Your task to perform on an android device: turn off picture-in-picture Image 0: 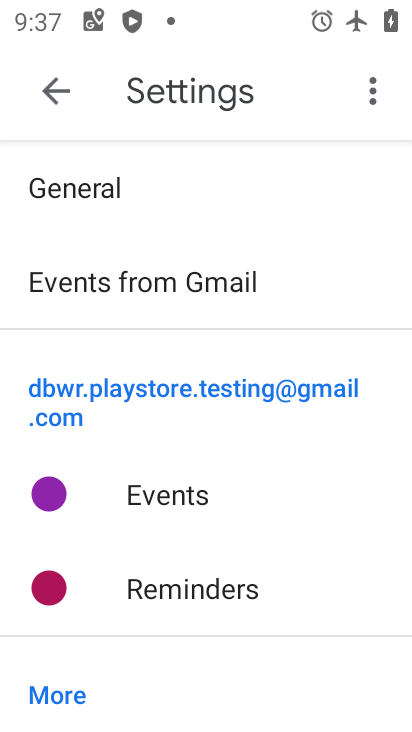
Step 0: press home button
Your task to perform on an android device: turn off picture-in-picture Image 1: 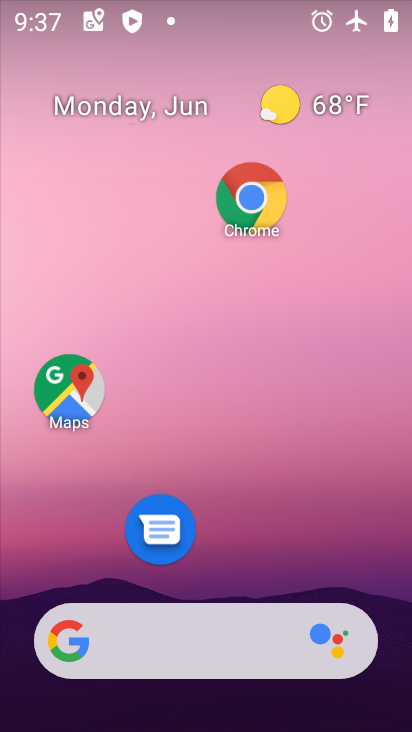
Step 1: click (248, 199)
Your task to perform on an android device: turn off picture-in-picture Image 2: 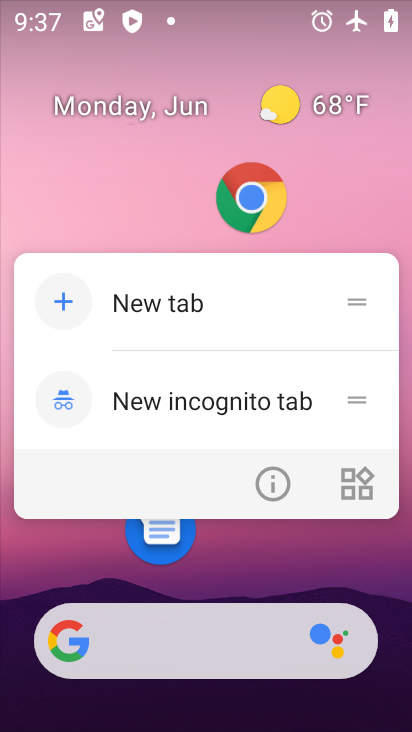
Step 2: click (278, 485)
Your task to perform on an android device: turn off picture-in-picture Image 3: 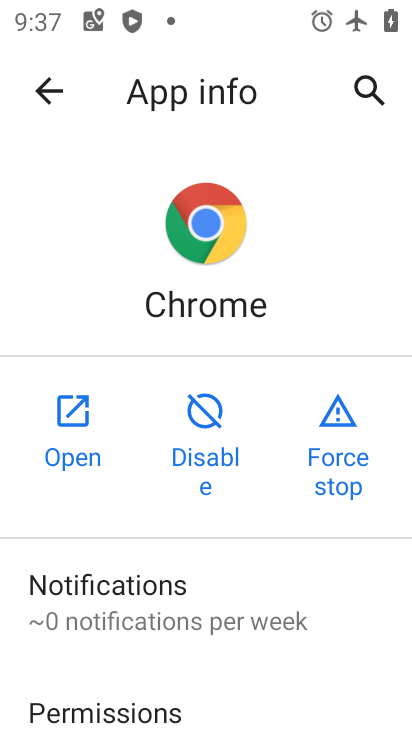
Step 3: drag from (253, 637) to (227, 164)
Your task to perform on an android device: turn off picture-in-picture Image 4: 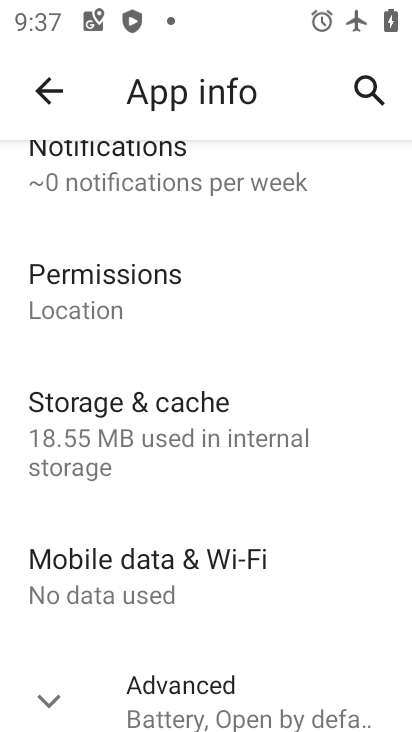
Step 4: click (234, 308)
Your task to perform on an android device: turn off picture-in-picture Image 5: 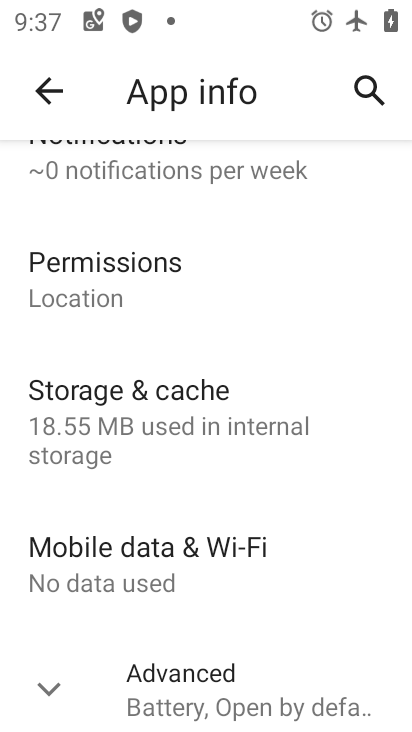
Step 5: drag from (227, 603) to (241, 285)
Your task to perform on an android device: turn off picture-in-picture Image 6: 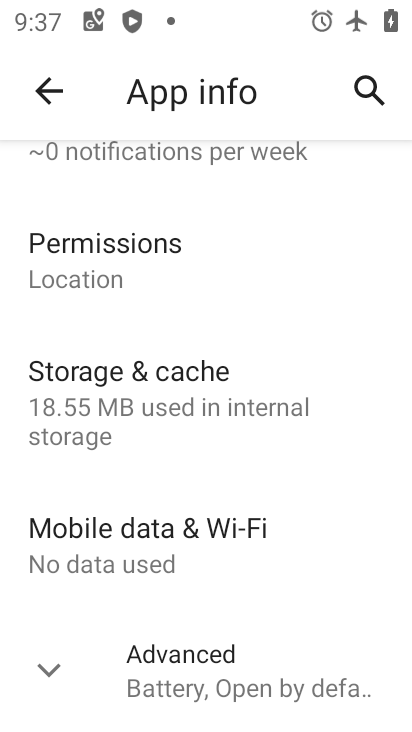
Step 6: drag from (262, 565) to (270, 241)
Your task to perform on an android device: turn off picture-in-picture Image 7: 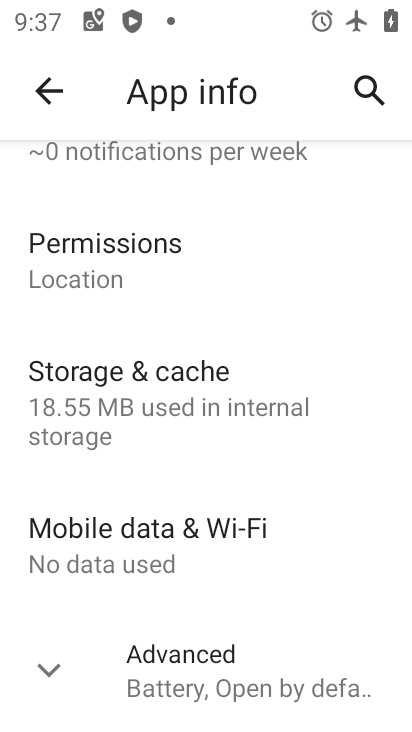
Step 7: drag from (229, 647) to (237, 196)
Your task to perform on an android device: turn off picture-in-picture Image 8: 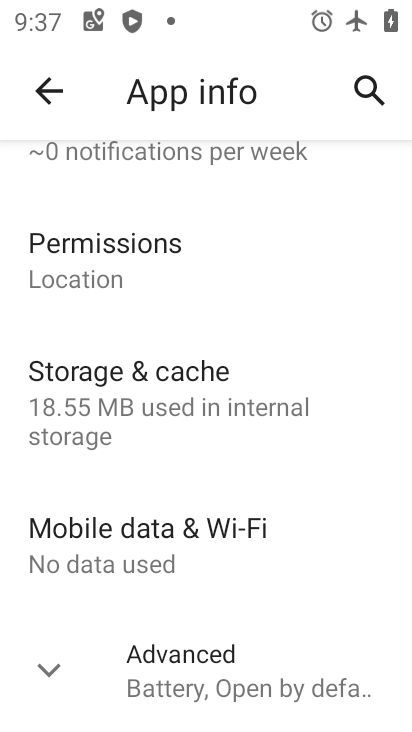
Step 8: click (162, 649)
Your task to perform on an android device: turn off picture-in-picture Image 9: 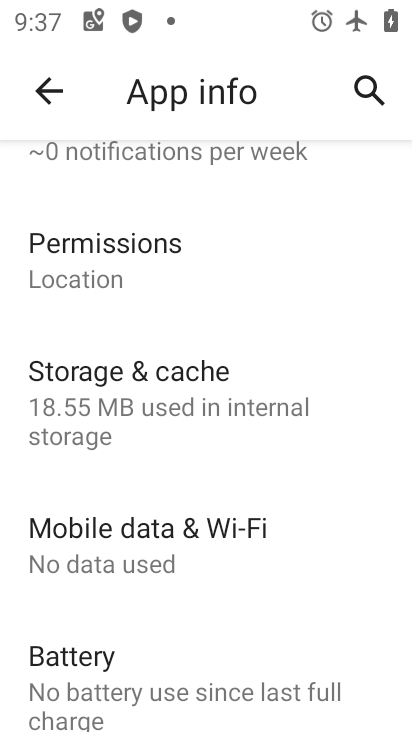
Step 9: drag from (194, 665) to (232, 400)
Your task to perform on an android device: turn off picture-in-picture Image 10: 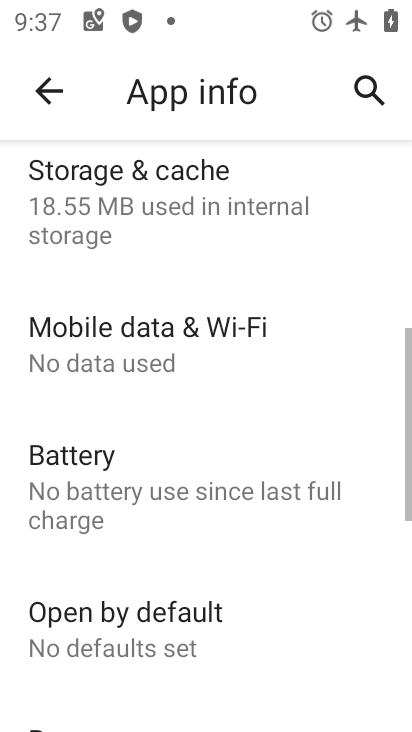
Step 10: drag from (223, 623) to (248, 375)
Your task to perform on an android device: turn off picture-in-picture Image 11: 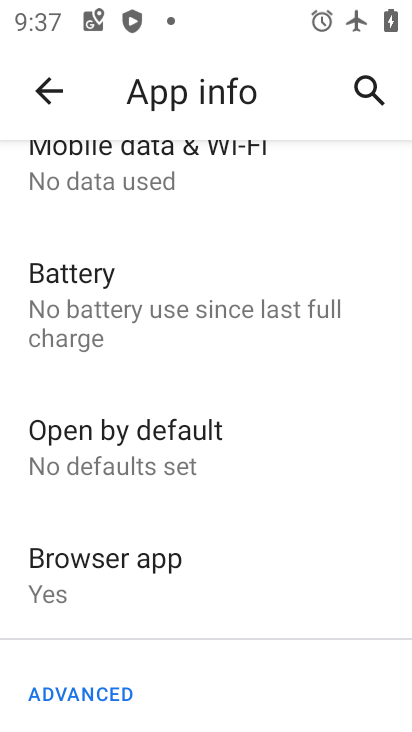
Step 11: drag from (262, 559) to (260, 290)
Your task to perform on an android device: turn off picture-in-picture Image 12: 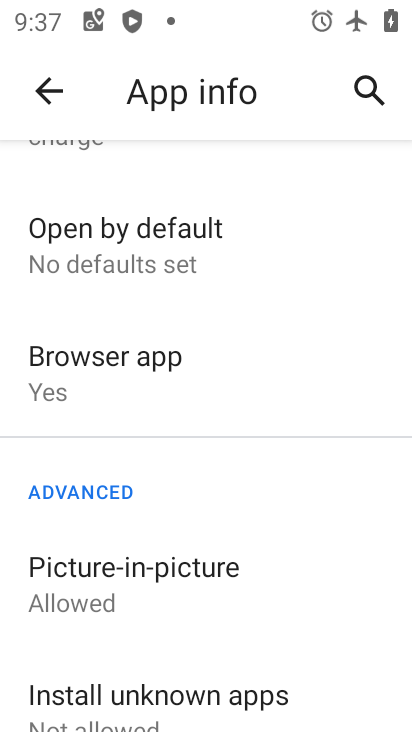
Step 12: click (238, 579)
Your task to perform on an android device: turn off picture-in-picture Image 13: 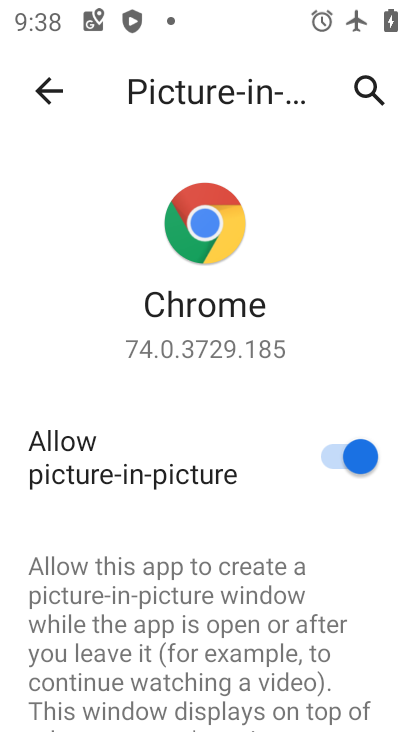
Step 13: click (337, 461)
Your task to perform on an android device: turn off picture-in-picture Image 14: 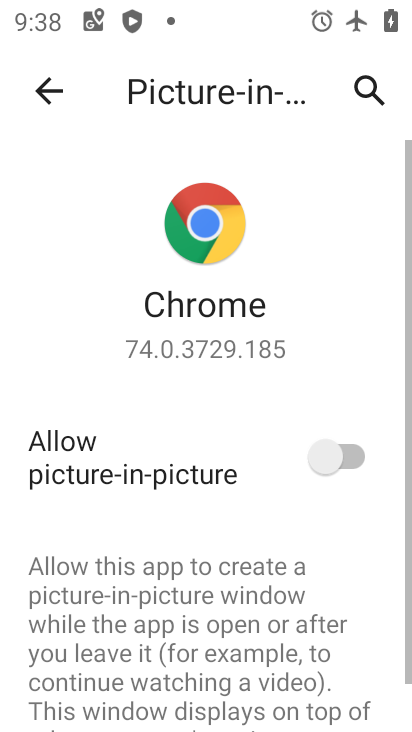
Step 14: task complete